Your task to perform on an android device: turn on data saver in the chrome app Image 0: 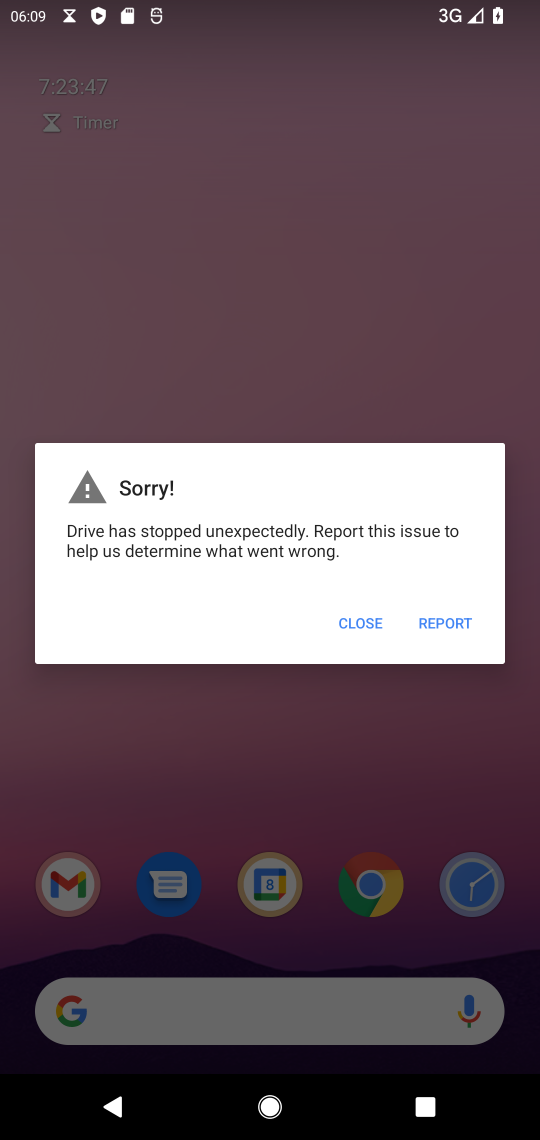
Step 0: click (346, 631)
Your task to perform on an android device: turn on data saver in the chrome app Image 1: 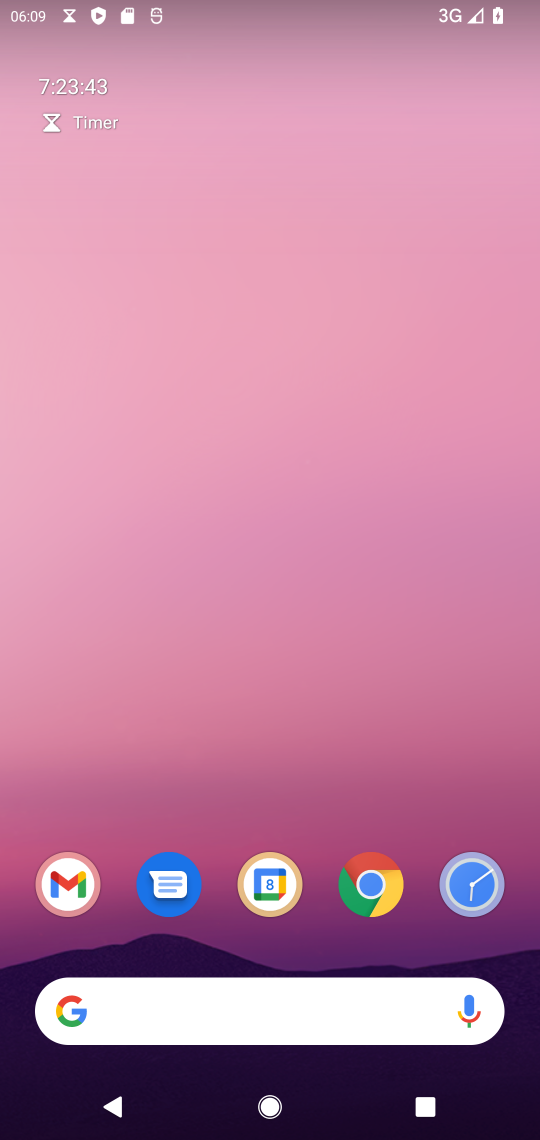
Step 1: drag from (333, 828) to (321, 32)
Your task to perform on an android device: turn on data saver in the chrome app Image 2: 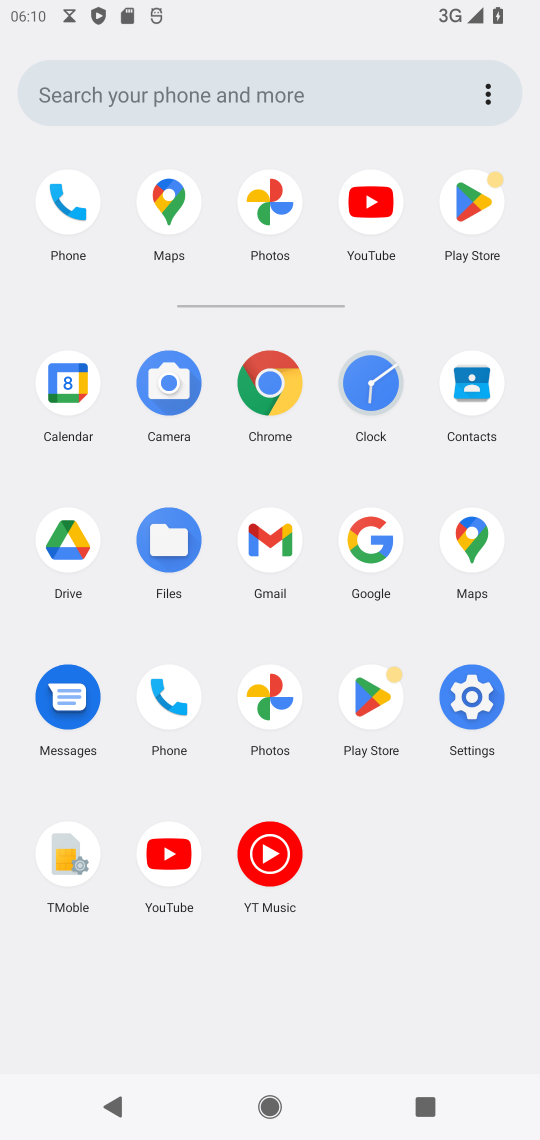
Step 2: click (287, 380)
Your task to perform on an android device: turn on data saver in the chrome app Image 3: 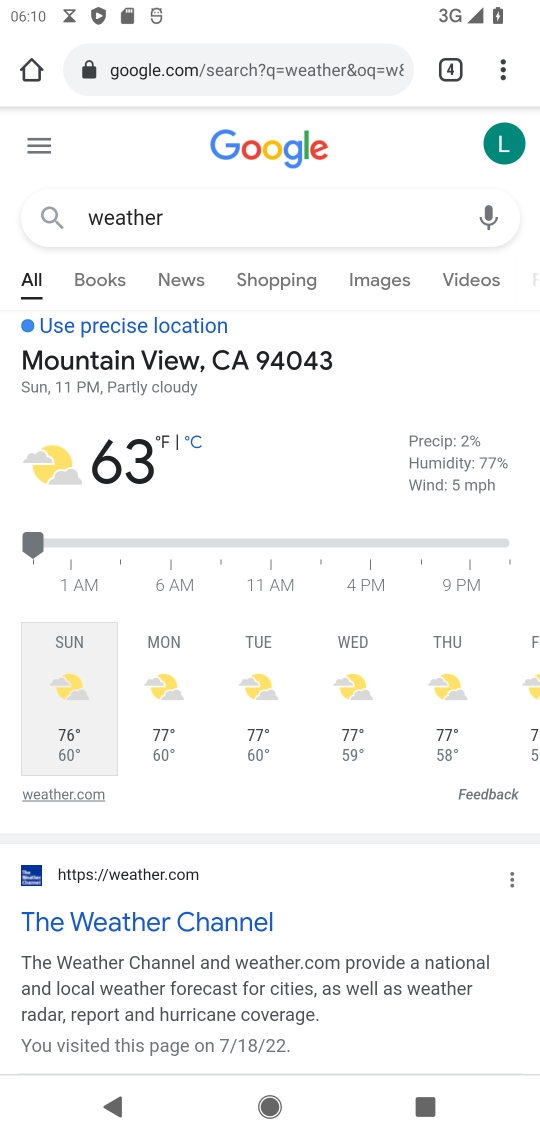
Step 3: click (505, 73)
Your task to perform on an android device: turn on data saver in the chrome app Image 4: 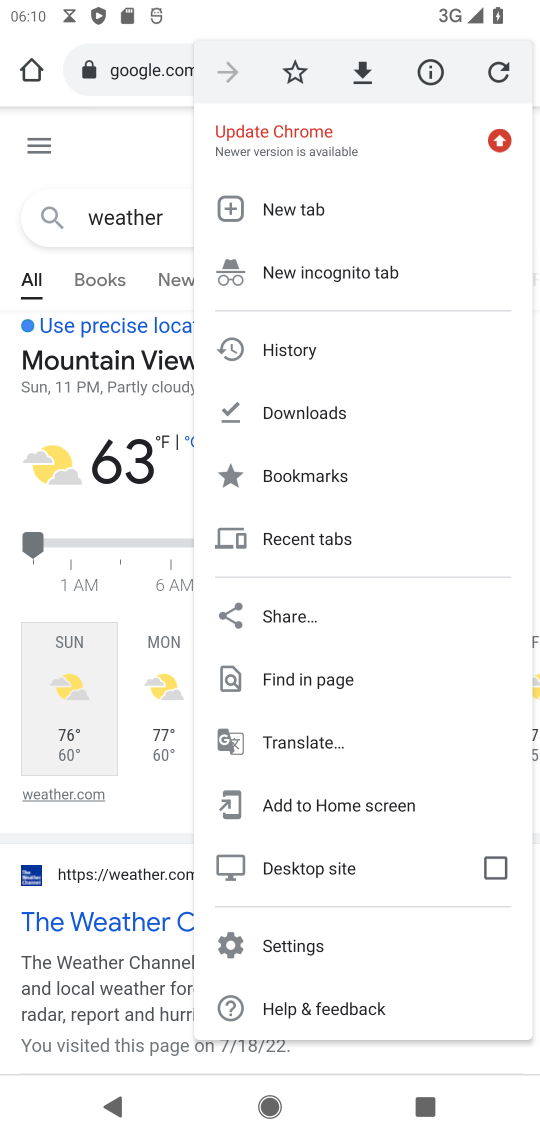
Step 4: click (312, 941)
Your task to perform on an android device: turn on data saver in the chrome app Image 5: 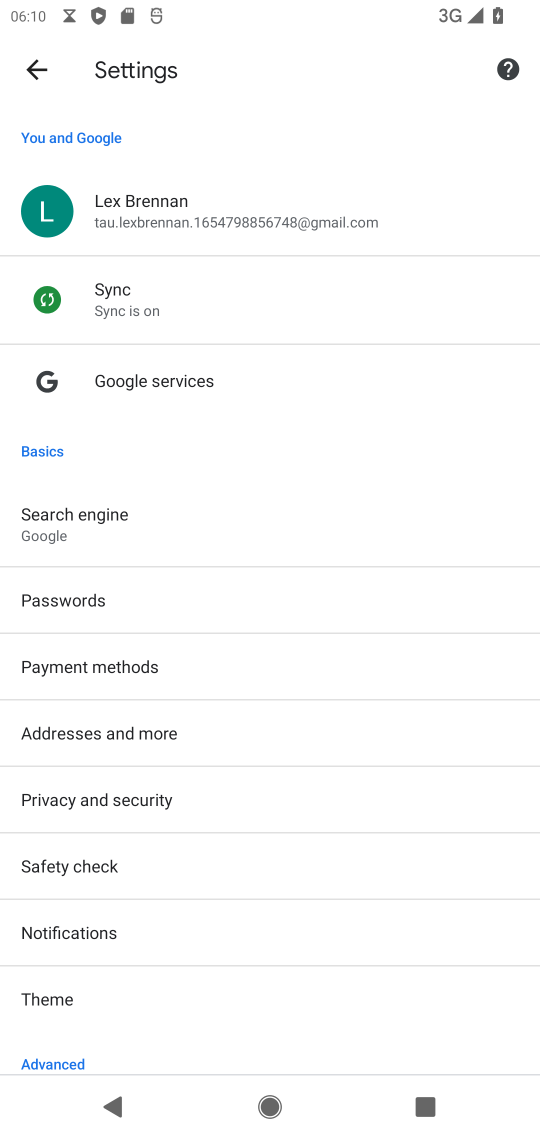
Step 5: drag from (272, 1043) to (200, 254)
Your task to perform on an android device: turn on data saver in the chrome app Image 6: 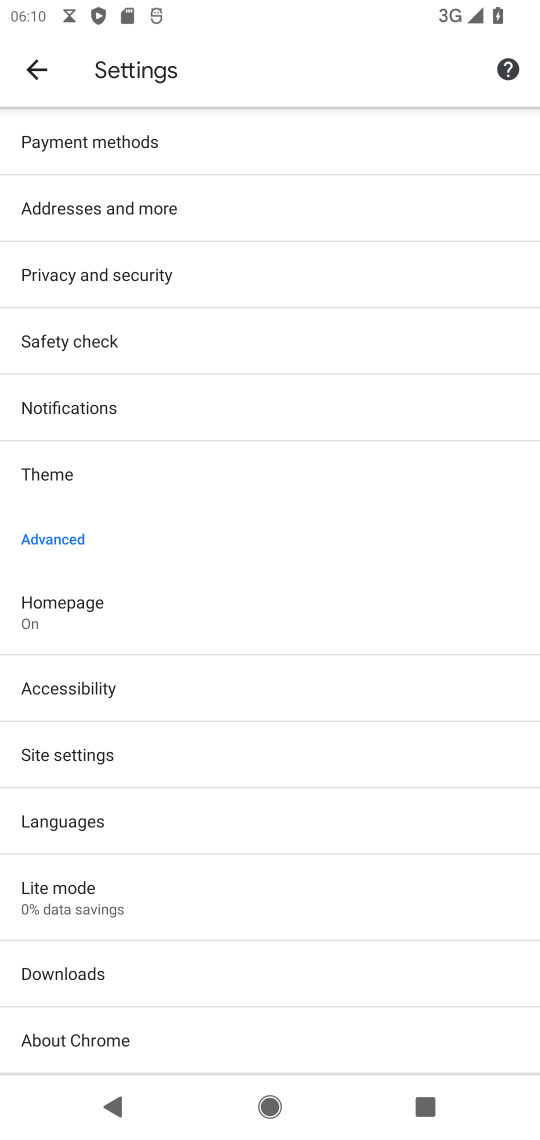
Step 6: click (165, 898)
Your task to perform on an android device: turn on data saver in the chrome app Image 7: 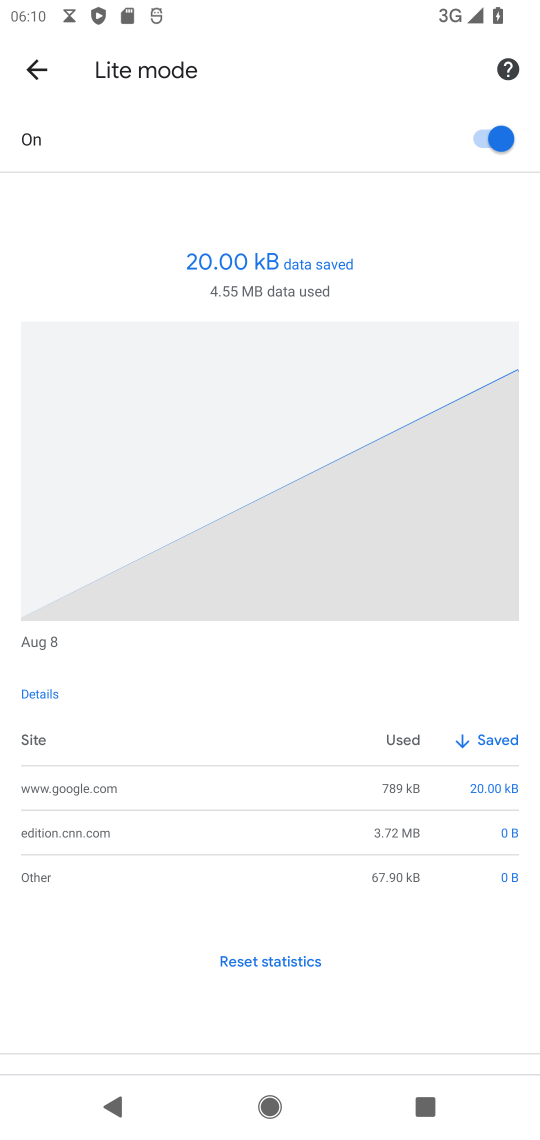
Step 7: task complete